Your task to perform on an android device: turn off airplane mode Image 0: 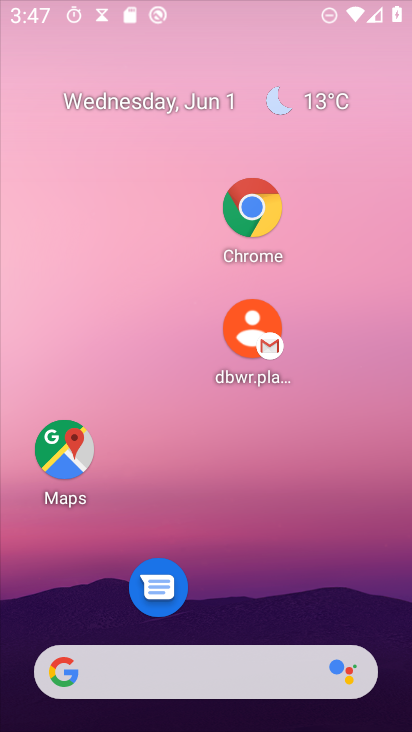
Step 0: drag from (247, 662) to (204, 345)
Your task to perform on an android device: turn off airplane mode Image 1: 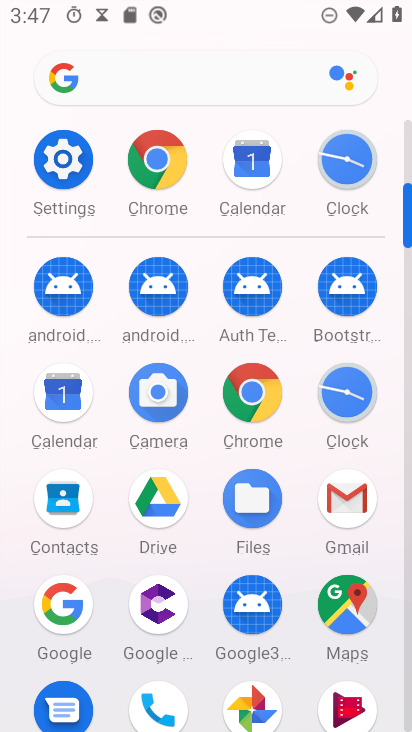
Step 1: click (63, 393)
Your task to perform on an android device: turn off airplane mode Image 2: 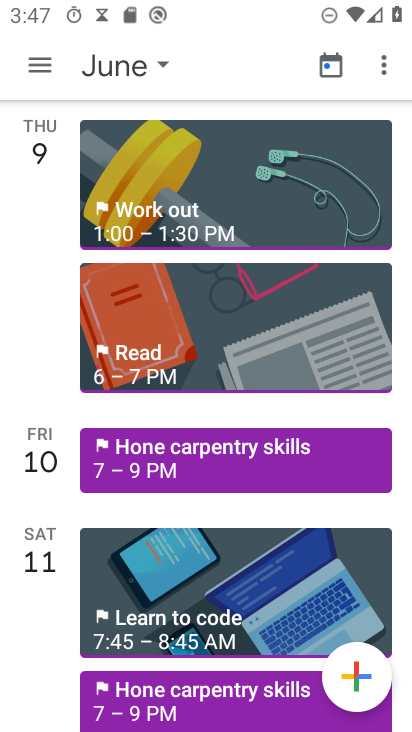
Step 2: press back button
Your task to perform on an android device: turn off airplane mode Image 3: 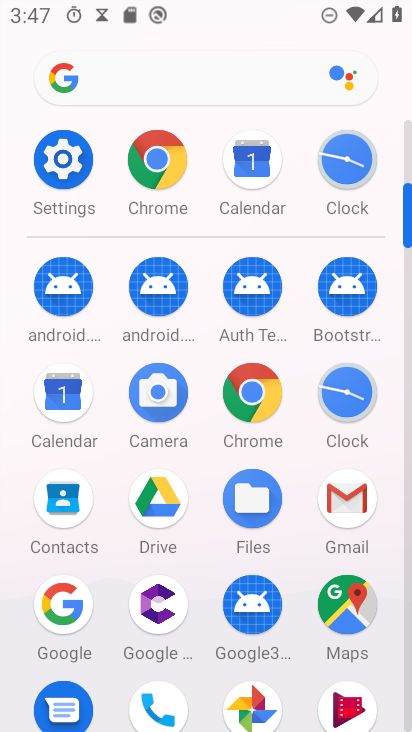
Step 3: click (61, 196)
Your task to perform on an android device: turn off airplane mode Image 4: 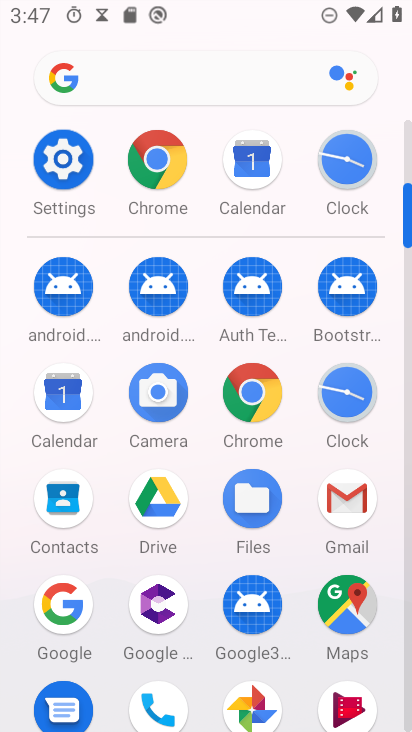
Step 4: click (80, 169)
Your task to perform on an android device: turn off airplane mode Image 5: 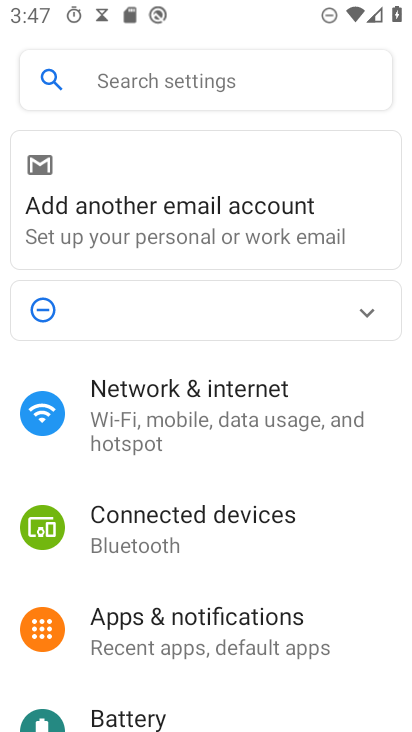
Step 5: drag from (194, 519) to (174, 257)
Your task to perform on an android device: turn off airplane mode Image 6: 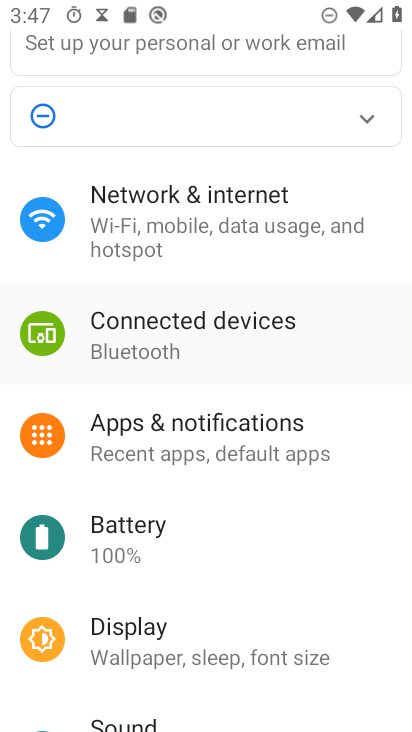
Step 6: drag from (210, 481) to (204, 310)
Your task to perform on an android device: turn off airplane mode Image 7: 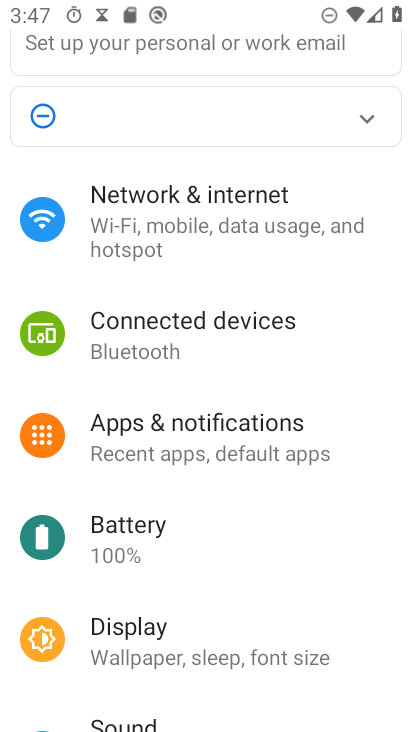
Step 7: drag from (225, 497) to (212, 219)
Your task to perform on an android device: turn off airplane mode Image 8: 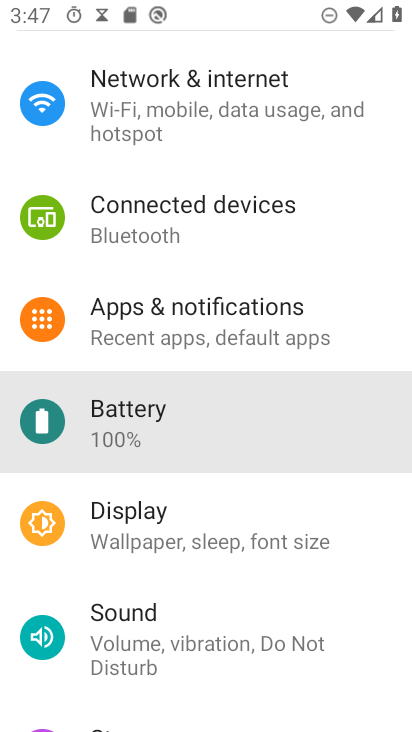
Step 8: drag from (237, 482) to (221, 257)
Your task to perform on an android device: turn off airplane mode Image 9: 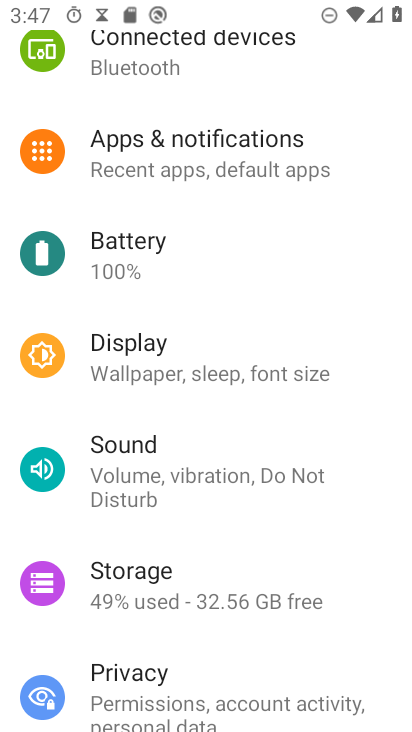
Step 9: drag from (215, 288) to (220, 610)
Your task to perform on an android device: turn off airplane mode Image 10: 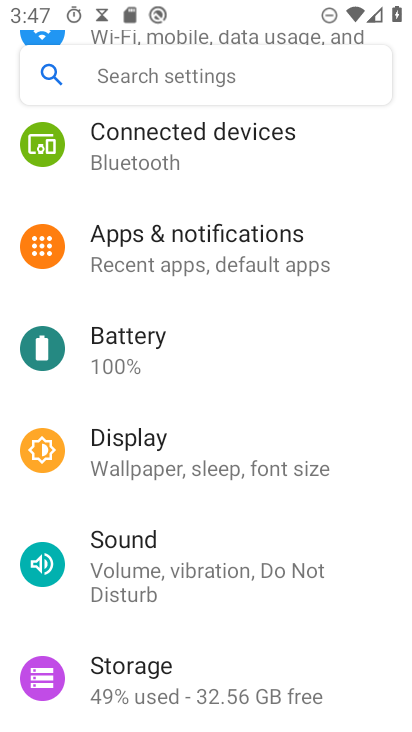
Step 10: drag from (208, 393) to (208, 665)
Your task to perform on an android device: turn off airplane mode Image 11: 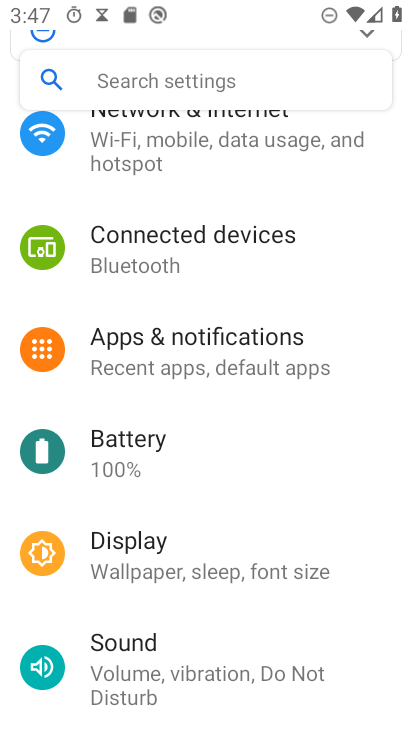
Step 11: drag from (206, 481) to (257, 594)
Your task to perform on an android device: turn off airplane mode Image 12: 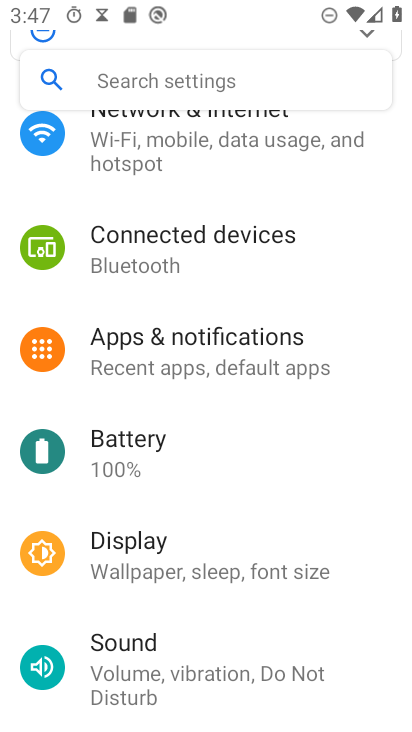
Step 12: drag from (232, 293) to (253, 619)
Your task to perform on an android device: turn off airplane mode Image 13: 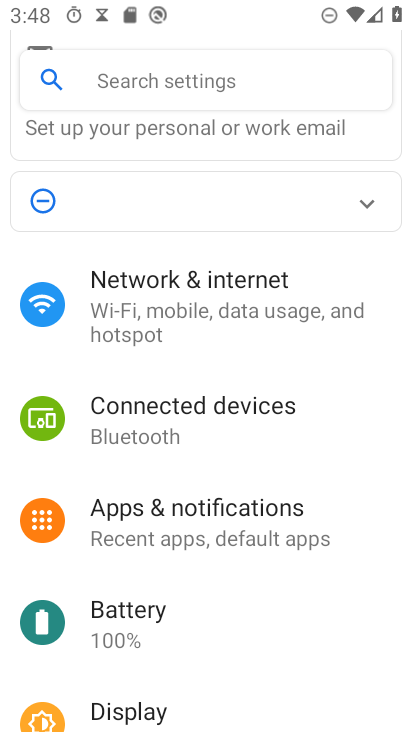
Step 13: click (177, 296)
Your task to perform on an android device: turn off airplane mode Image 14: 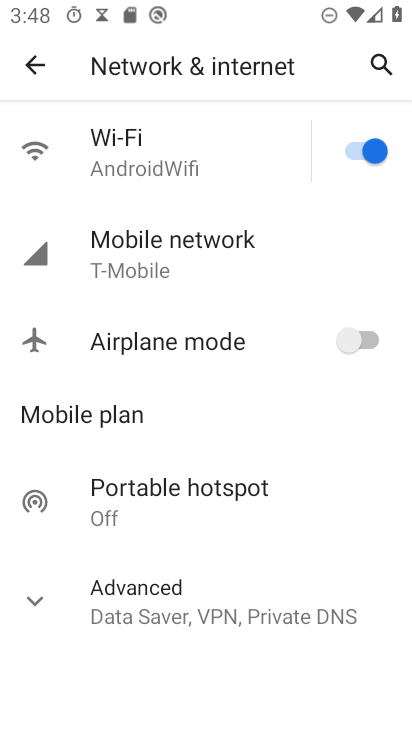
Step 14: task complete